Your task to perform on an android device: Show me the best 1080p monitor on Target.com Image 0: 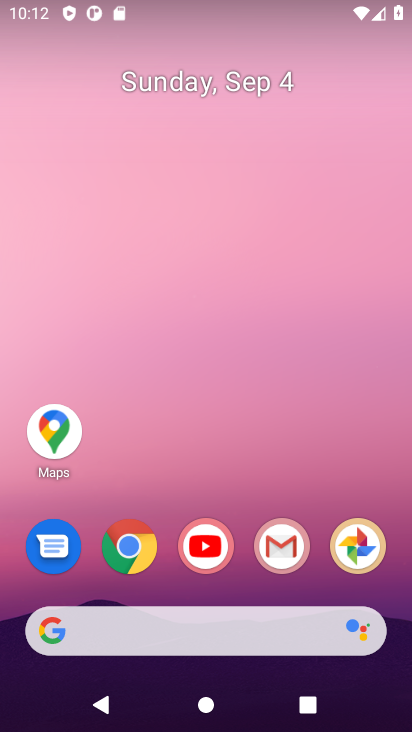
Step 0: click (129, 564)
Your task to perform on an android device: Show me the best 1080p monitor on Target.com Image 1: 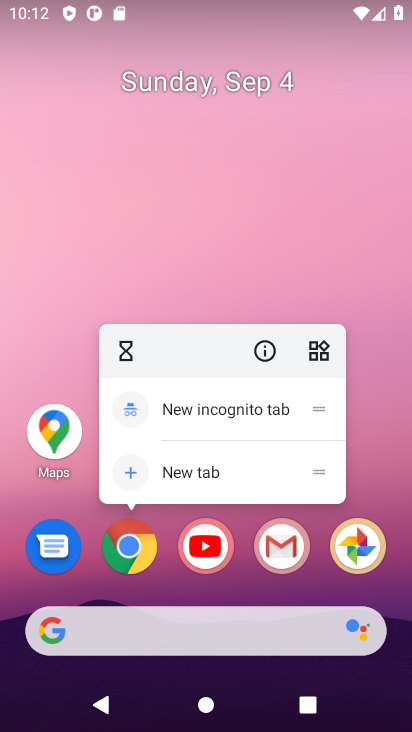
Step 1: click (131, 554)
Your task to perform on an android device: Show me the best 1080p monitor on Target.com Image 2: 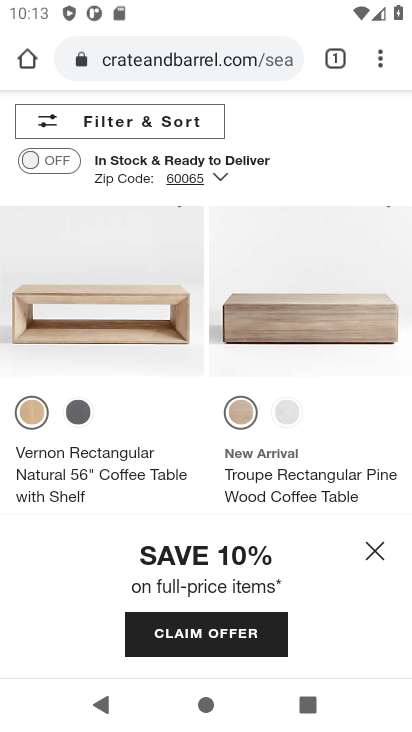
Step 2: click (197, 53)
Your task to perform on an android device: Show me the best 1080p monitor on Target.com Image 3: 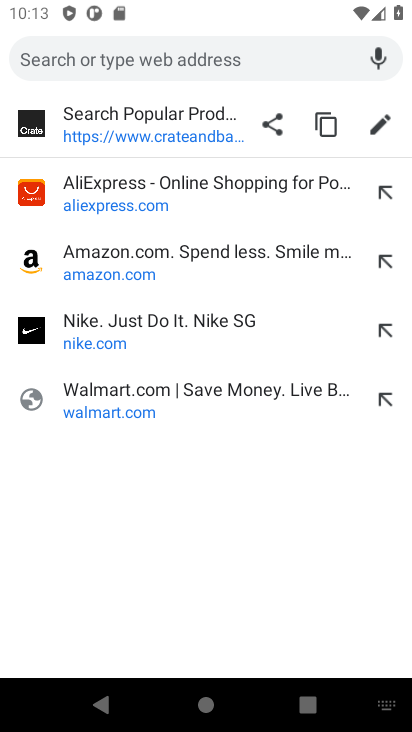
Step 3: type "Target.com"
Your task to perform on an android device: Show me the best 1080p monitor on Target.com Image 4: 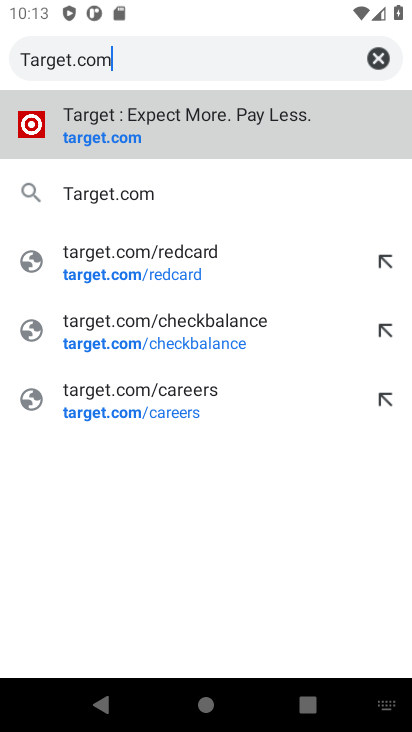
Step 4: click (99, 124)
Your task to perform on an android device: Show me the best 1080p monitor on Target.com Image 5: 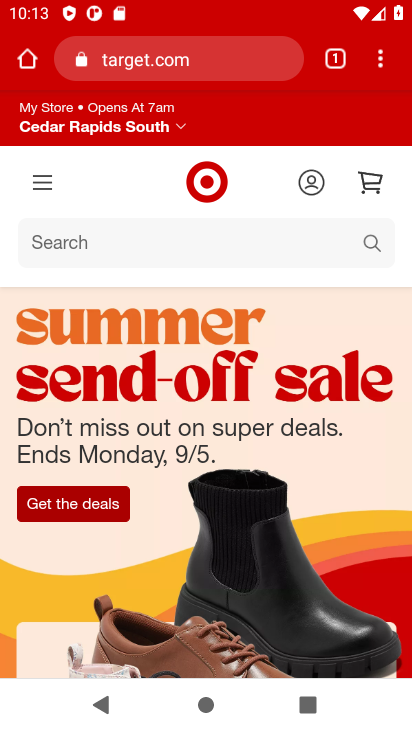
Step 5: click (365, 247)
Your task to perform on an android device: Show me the best 1080p monitor on Target.com Image 6: 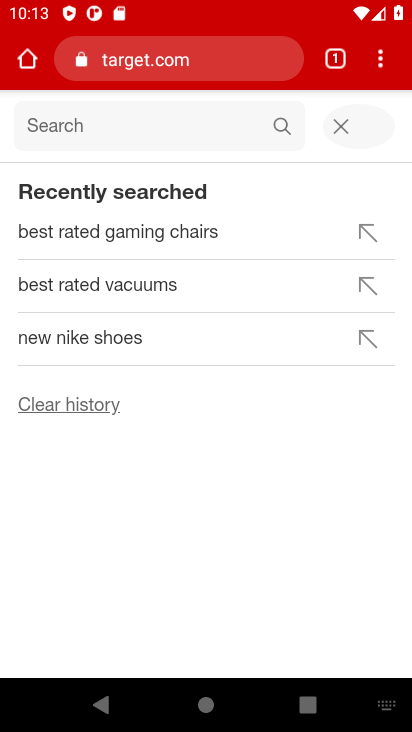
Step 6: click (163, 128)
Your task to perform on an android device: Show me the best 1080p monitor on Target.com Image 7: 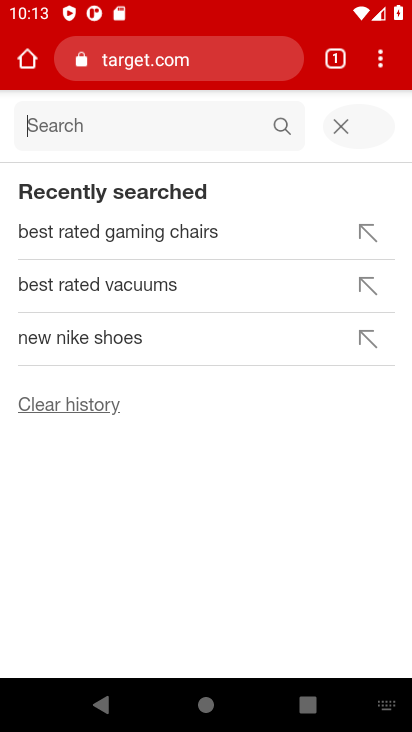
Step 7: type "best 1080p monitor"
Your task to perform on an android device: Show me the best 1080p monitor on Target.com Image 8: 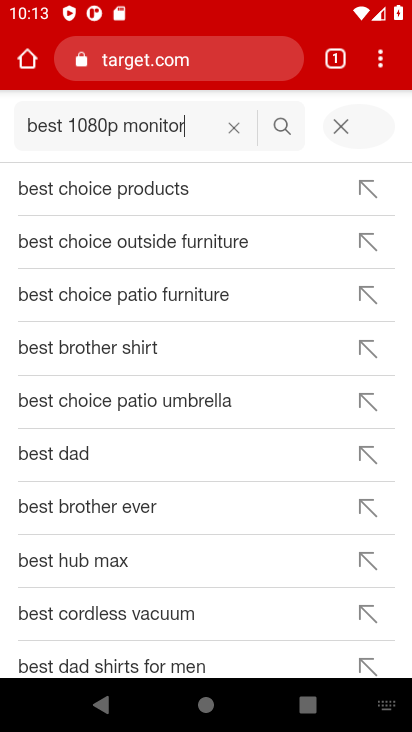
Step 8: click (279, 126)
Your task to perform on an android device: Show me the best 1080p monitor on Target.com Image 9: 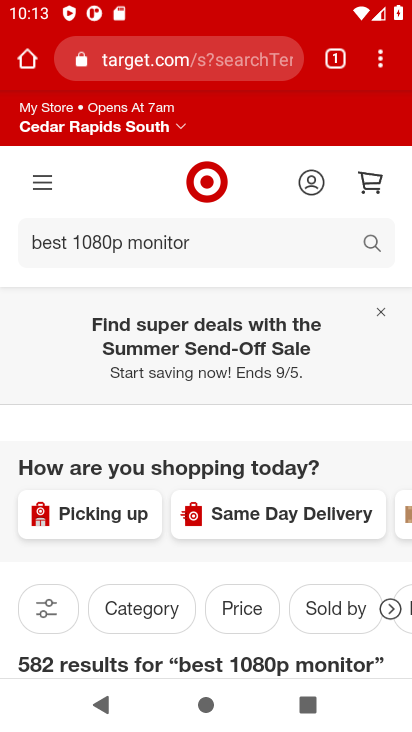
Step 9: click (363, 240)
Your task to perform on an android device: Show me the best 1080p monitor on Target.com Image 10: 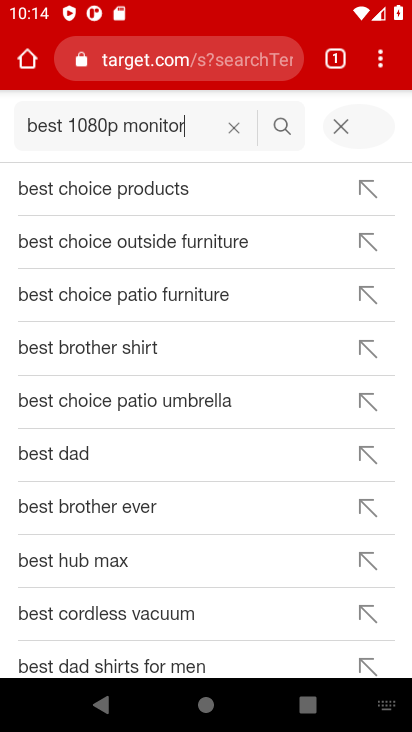
Step 10: click (283, 126)
Your task to perform on an android device: Show me the best 1080p monitor on Target.com Image 11: 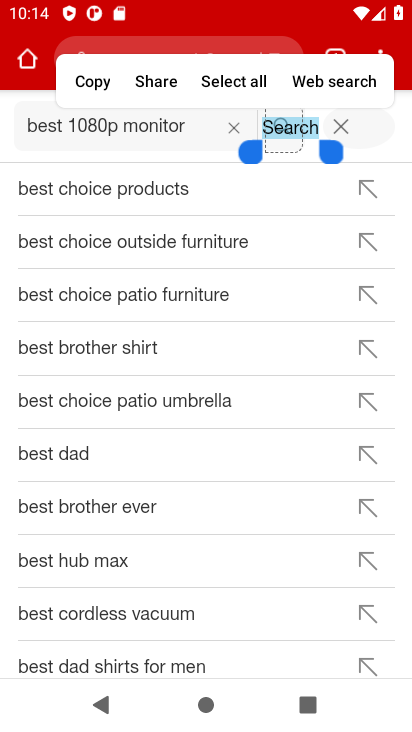
Step 11: click (283, 126)
Your task to perform on an android device: Show me the best 1080p monitor on Target.com Image 12: 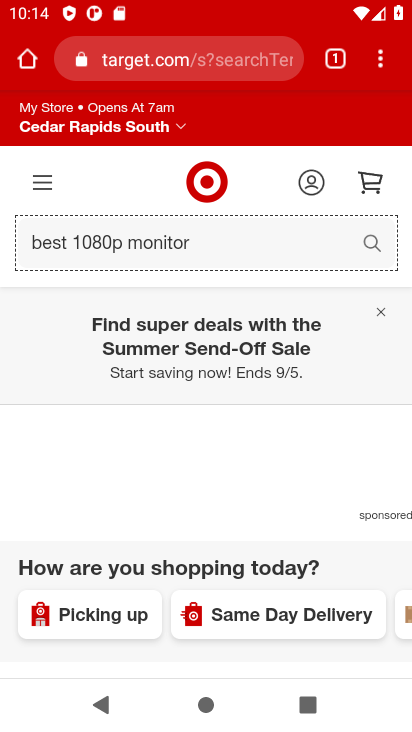
Step 12: task complete